Your task to perform on an android device: open a new tab in the chrome app Image 0: 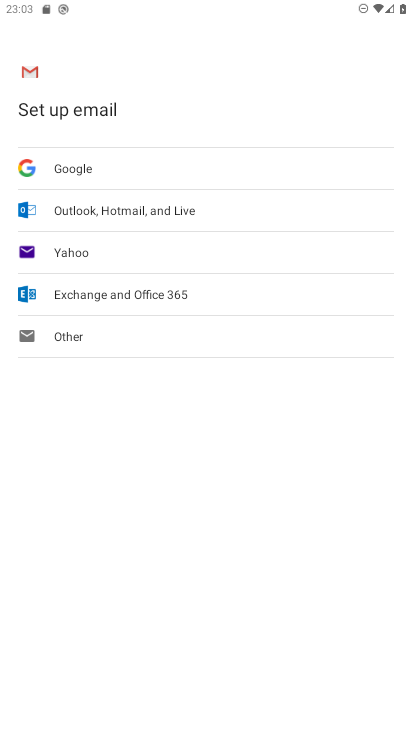
Step 0: press home button
Your task to perform on an android device: open a new tab in the chrome app Image 1: 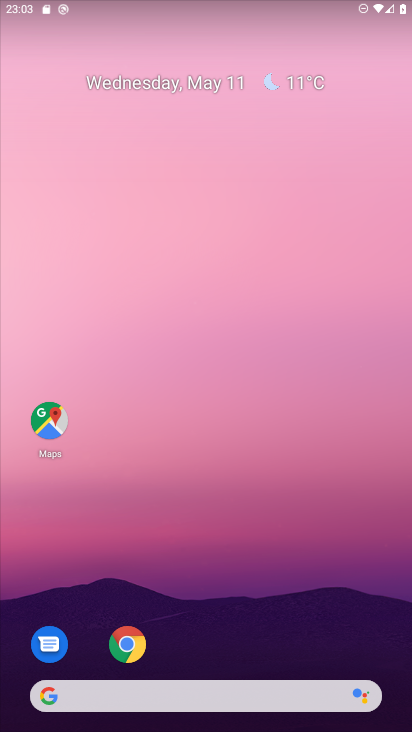
Step 1: click (139, 645)
Your task to perform on an android device: open a new tab in the chrome app Image 2: 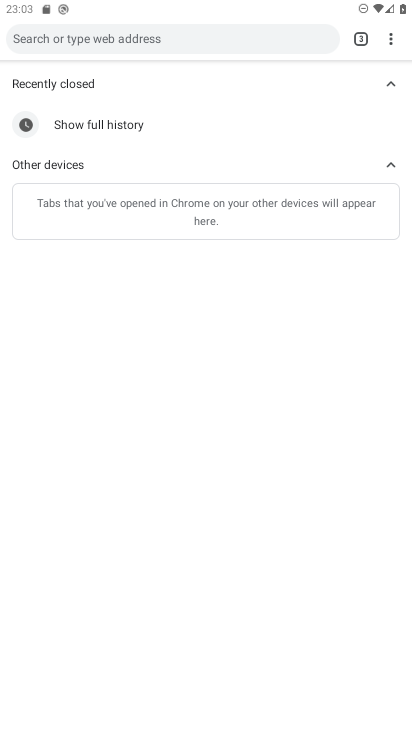
Step 2: click (392, 41)
Your task to perform on an android device: open a new tab in the chrome app Image 3: 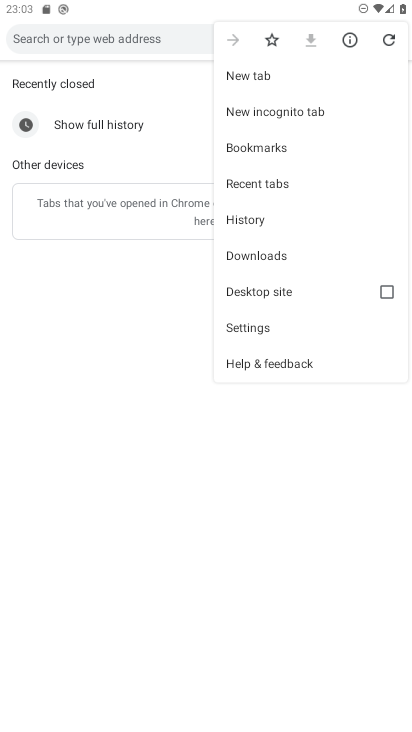
Step 3: click (264, 74)
Your task to perform on an android device: open a new tab in the chrome app Image 4: 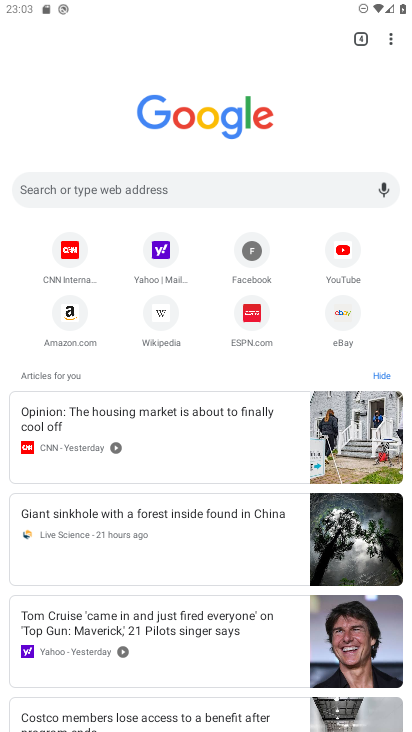
Step 4: task complete